Your task to perform on an android device: see sites visited before in the chrome app Image 0: 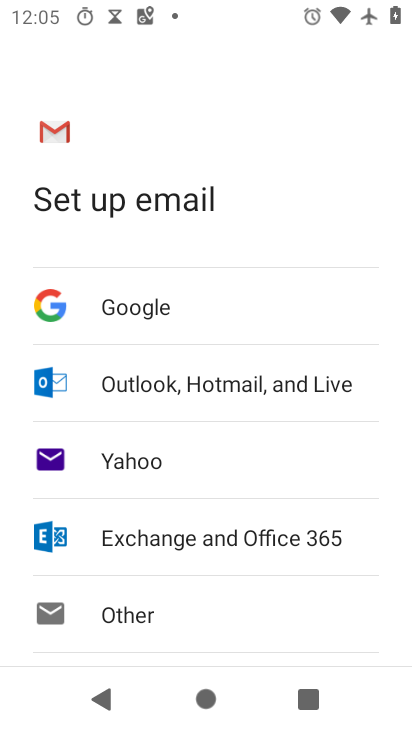
Step 0: press back button
Your task to perform on an android device: see sites visited before in the chrome app Image 1: 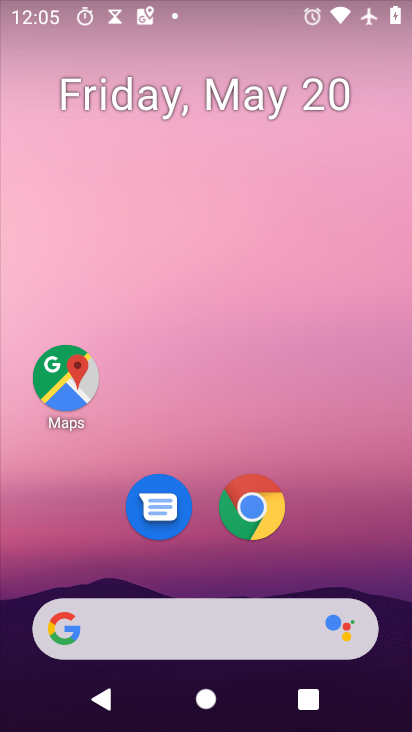
Step 1: drag from (342, 532) to (233, 12)
Your task to perform on an android device: see sites visited before in the chrome app Image 2: 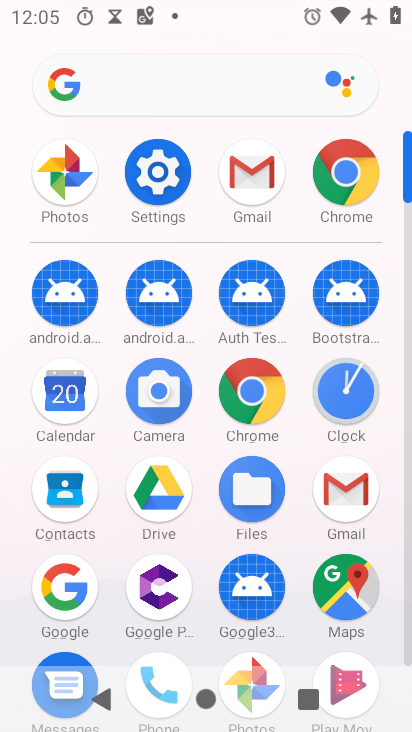
Step 2: drag from (4, 519) to (15, 208)
Your task to perform on an android device: see sites visited before in the chrome app Image 3: 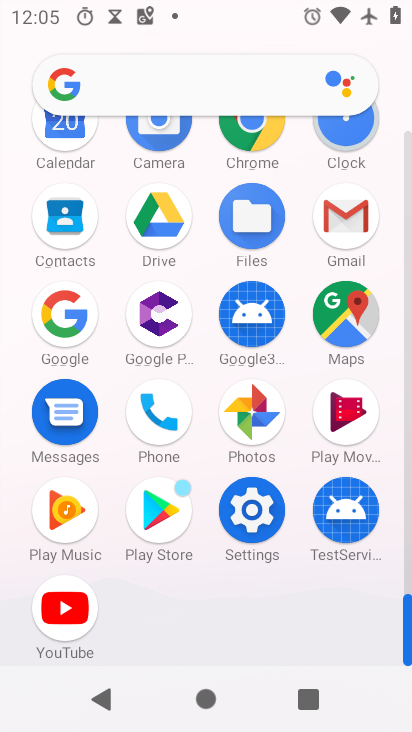
Step 3: drag from (16, 213) to (15, 403)
Your task to perform on an android device: see sites visited before in the chrome app Image 4: 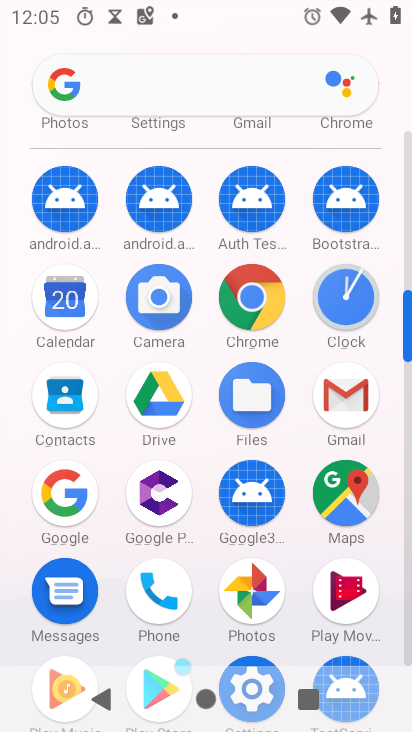
Step 4: click (253, 295)
Your task to perform on an android device: see sites visited before in the chrome app Image 5: 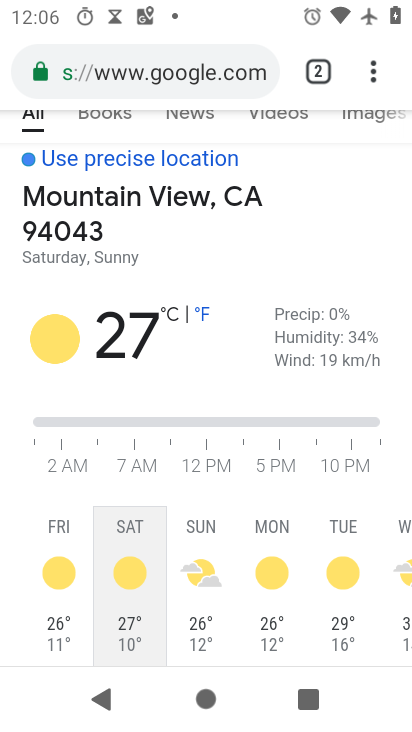
Step 5: task complete